Your task to perform on an android device: Open the stopwatch Image 0: 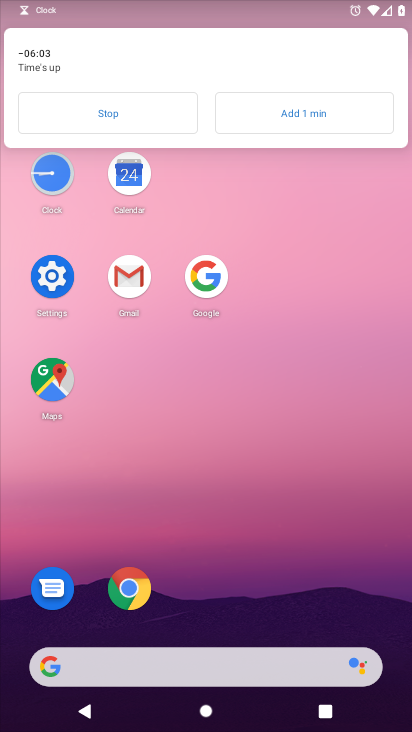
Step 0: click (113, 117)
Your task to perform on an android device: Open the stopwatch Image 1: 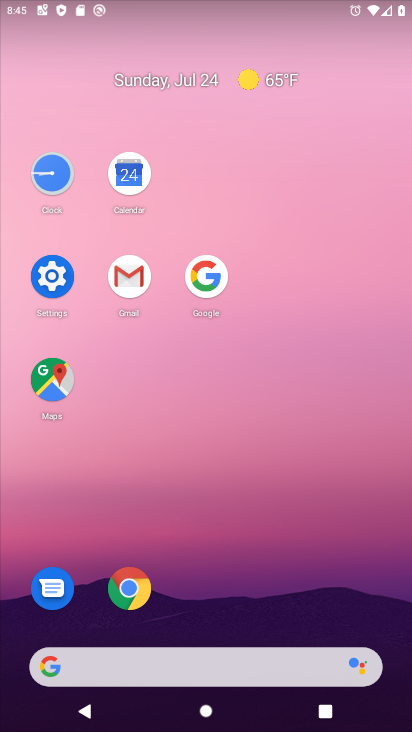
Step 1: click (52, 179)
Your task to perform on an android device: Open the stopwatch Image 2: 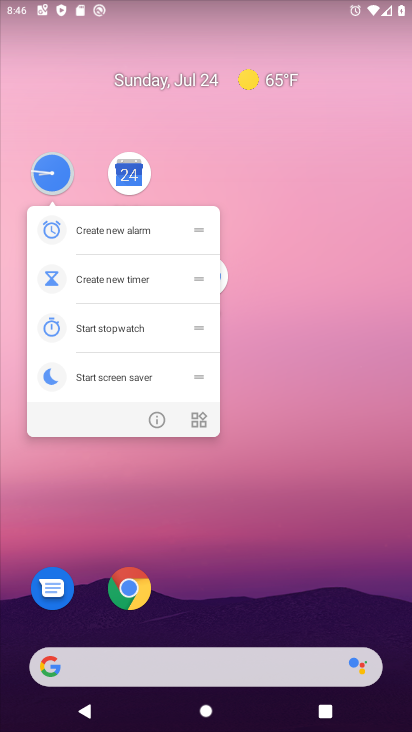
Step 2: click (52, 179)
Your task to perform on an android device: Open the stopwatch Image 3: 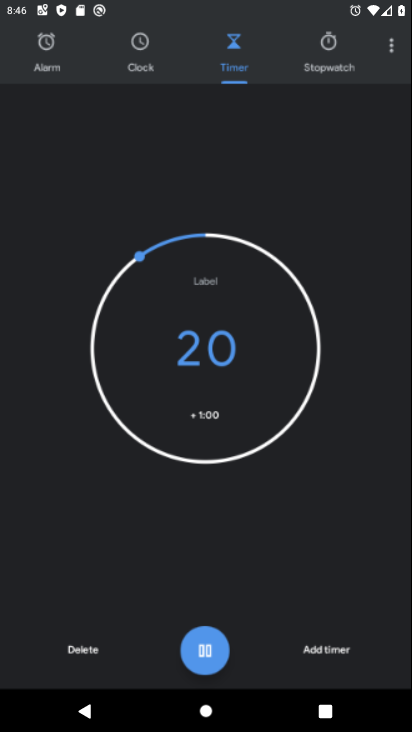
Step 3: click (338, 39)
Your task to perform on an android device: Open the stopwatch Image 4: 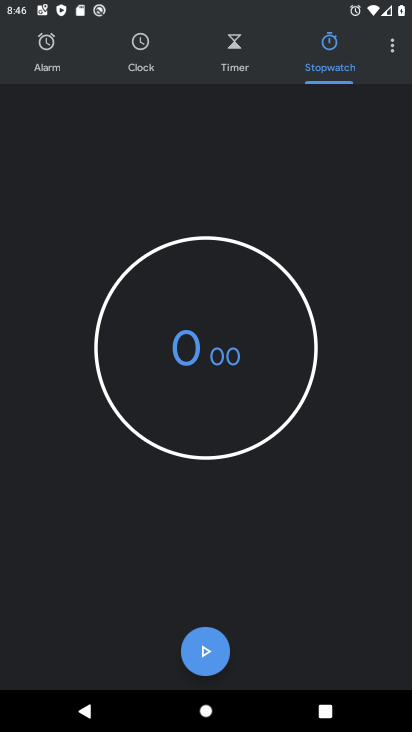
Step 4: click (212, 313)
Your task to perform on an android device: Open the stopwatch Image 5: 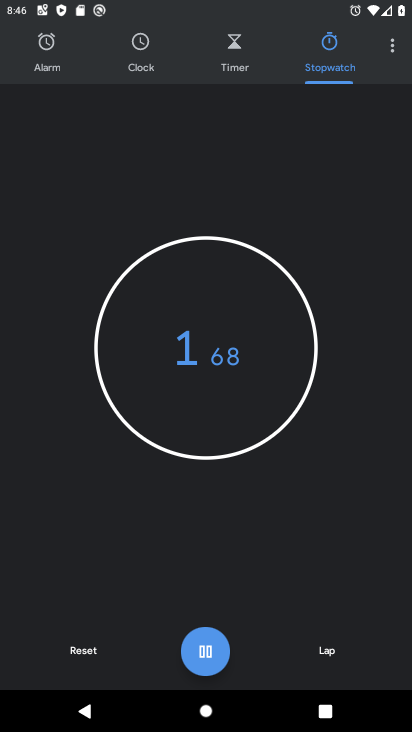
Step 5: task complete